Your task to perform on an android device: change keyboard looks Image 0: 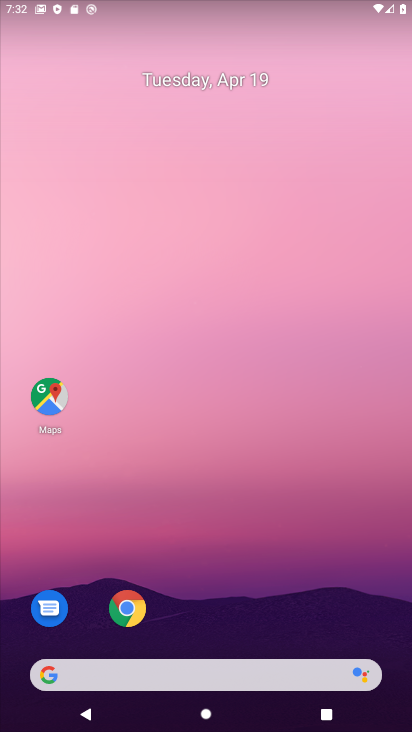
Step 0: drag from (283, 606) to (254, 180)
Your task to perform on an android device: change keyboard looks Image 1: 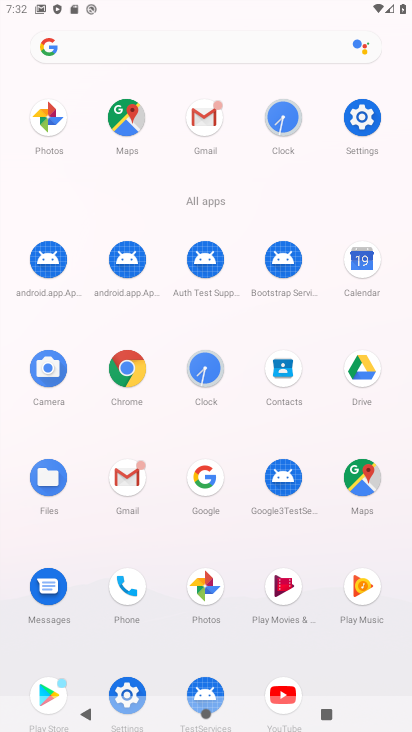
Step 1: click (371, 134)
Your task to perform on an android device: change keyboard looks Image 2: 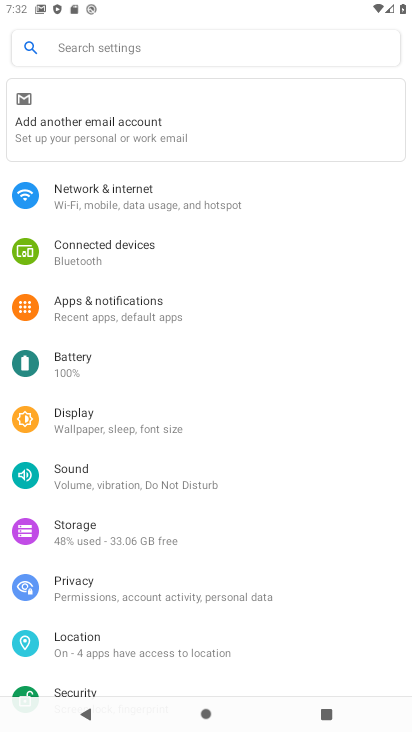
Step 2: drag from (258, 591) to (265, 373)
Your task to perform on an android device: change keyboard looks Image 3: 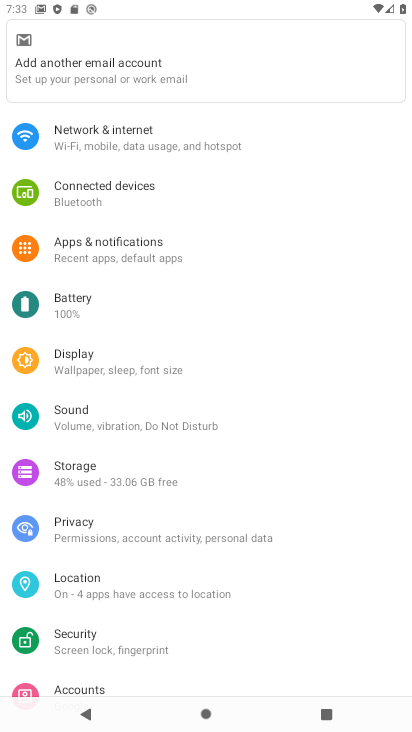
Step 3: drag from (252, 554) to (232, 172)
Your task to perform on an android device: change keyboard looks Image 4: 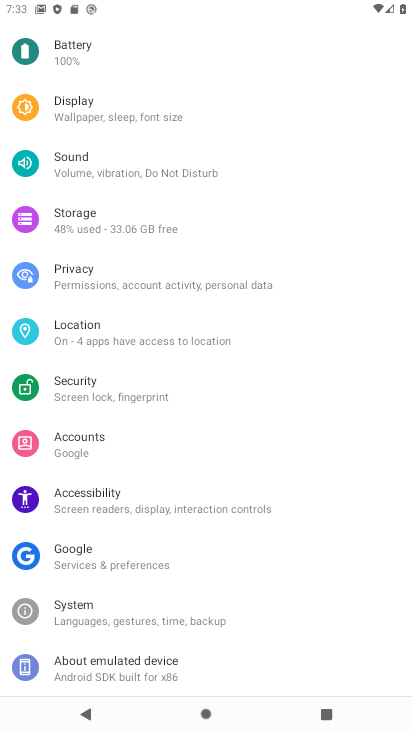
Step 4: click (267, 624)
Your task to perform on an android device: change keyboard looks Image 5: 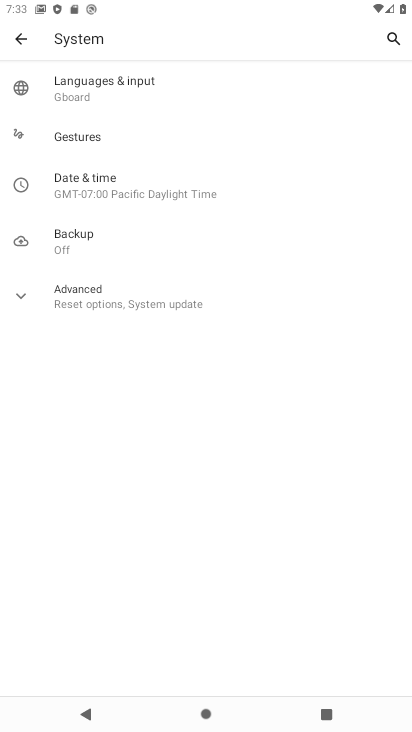
Step 5: click (180, 106)
Your task to perform on an android device: change keyboard looks Image 6: 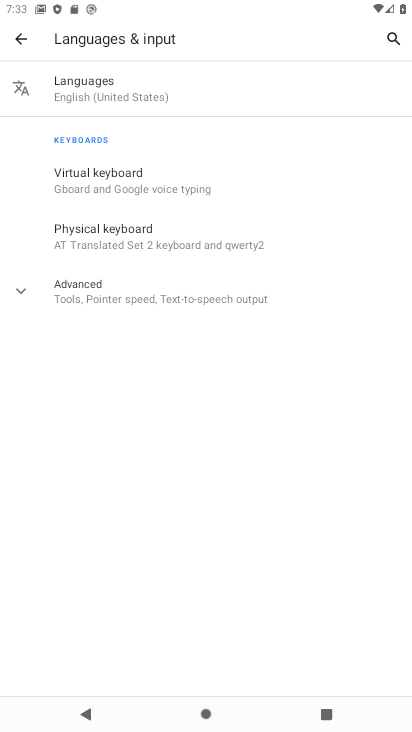
Step 6: click (185, 172)
Your task to perform on an android device: change keyboard looks Image 7: 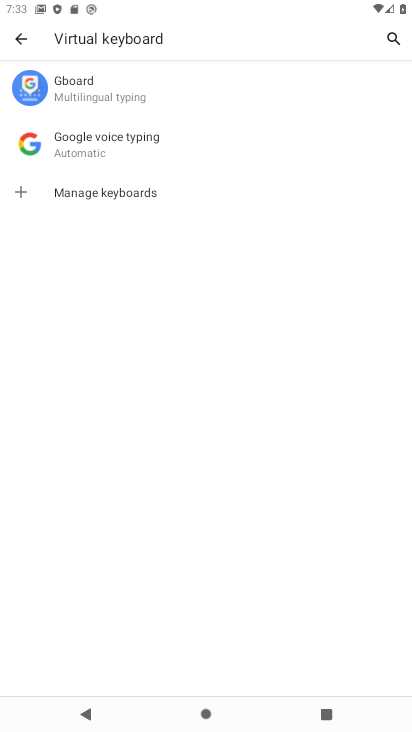
Step 7: click (157, 97)
Your task to perform on an android device: change keyboard looks Image 8: 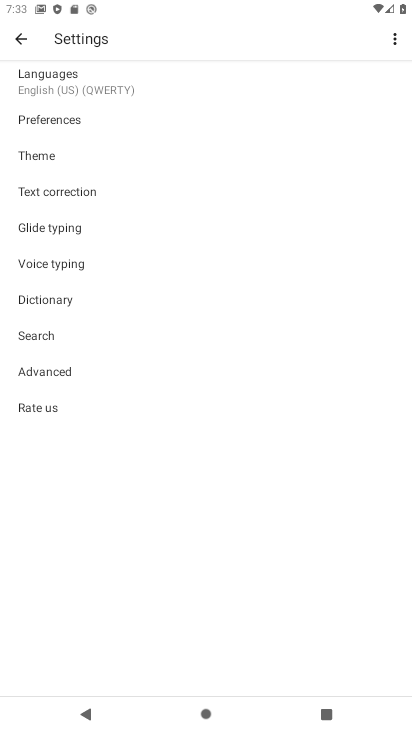
Step 8: click (59, 151)
Your task to perform on an android device: change keyboard looks Image 9: 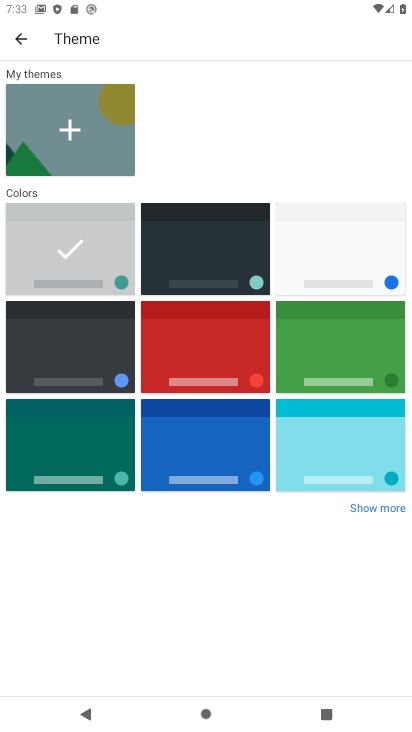
Step 9: click (232, 246)
Your task to perform on an android device: change keyboard looks Image 10: 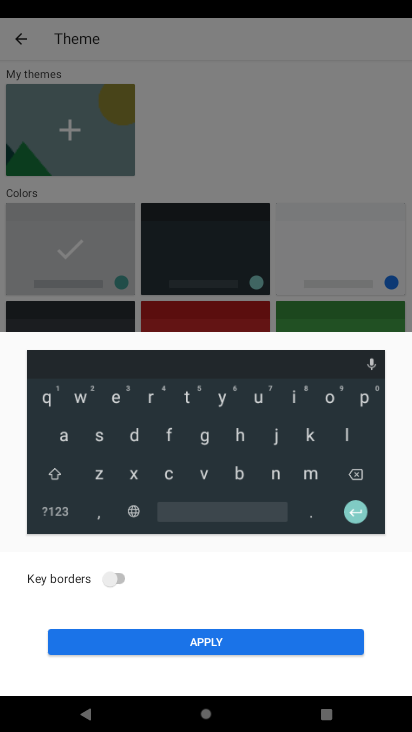
Step 10: click (280, 632)
Your task to perform on an android device: change keyboard looks Image 11: 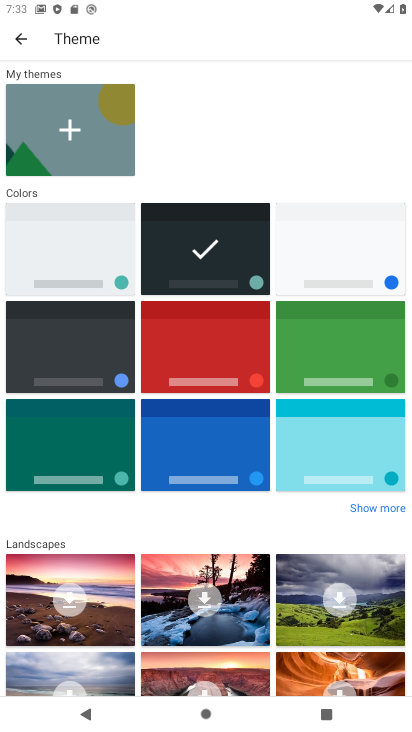
Step 11: task complete